Your task to perform on an android device: Open calendar and show me the second week of next month Image 0: 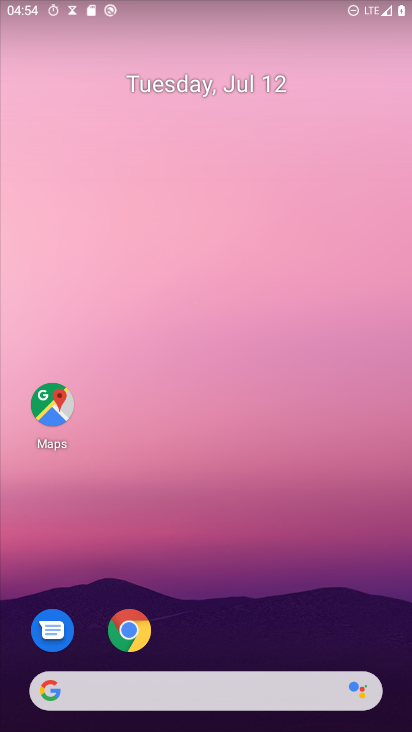
Step 0: drag from (286, 643) to (334, 15)
Your task to perform on an android device: Open calendar and show me the second week of next month Image 1: 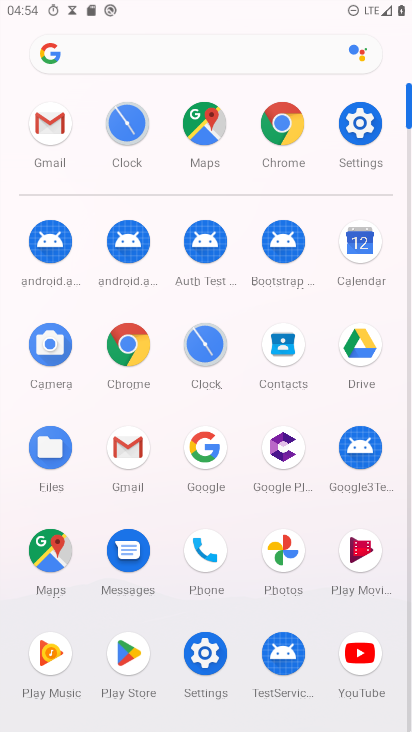
Step 1: click (359, 232)
Your task to perform on an android device: Open calendar and show me the second week of next month Image 2: 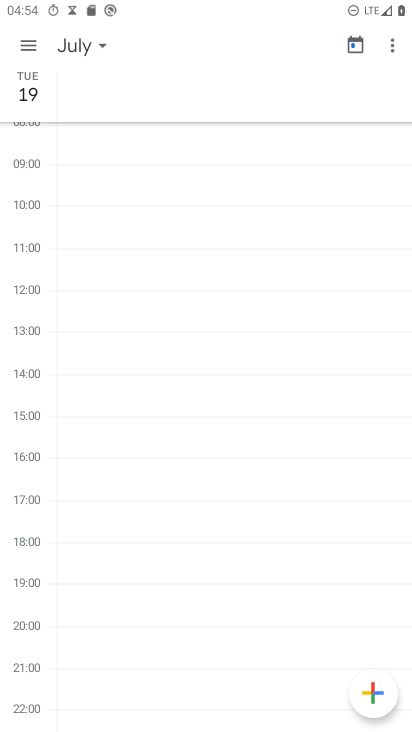
Step 2: click (98, 43)
Your task to perform on an android device: Open calendar and show me the second week of next month Image 3: 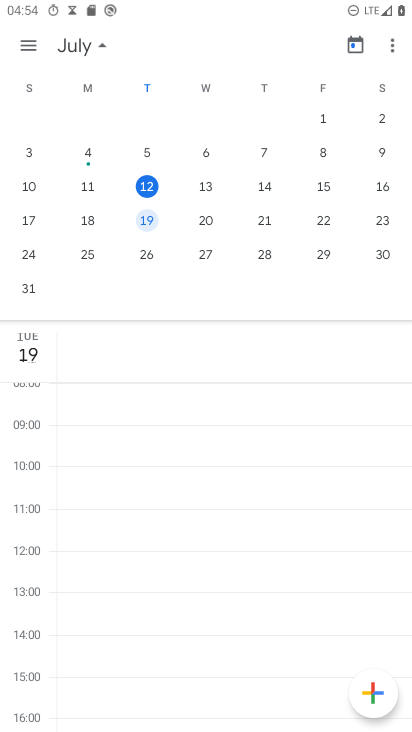
Step 3: drag from (356, 197) to (1, 177)
Your task to perform on an android device: Open calendar and show me the second week of next month Image 4: 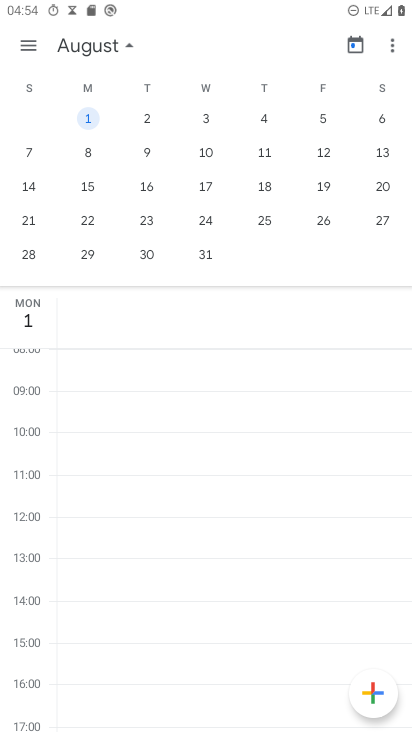
Step 4: click (209, 149)
Your task to perform on an android device: Open calendar and show me the second week of next month Image 5: 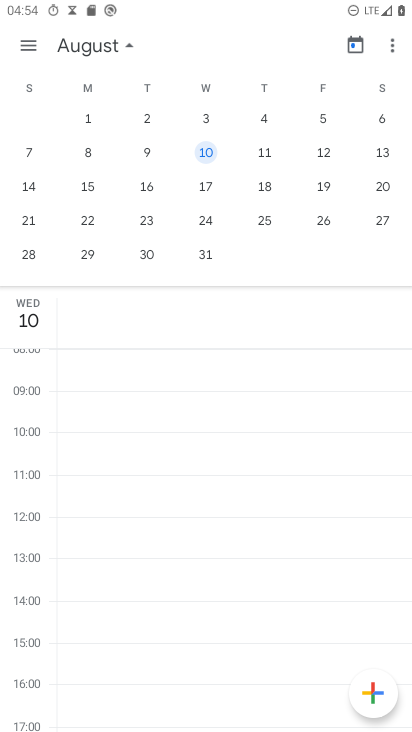
Step 5: task complete